Your task to perform on an android device: Go to Amazon Image 0: 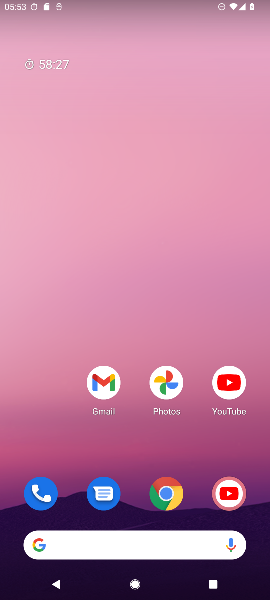
Step 0: drag from (61, 453) to (44, 83)
Your task to perform on an android device: Go to Amazon Image 1: 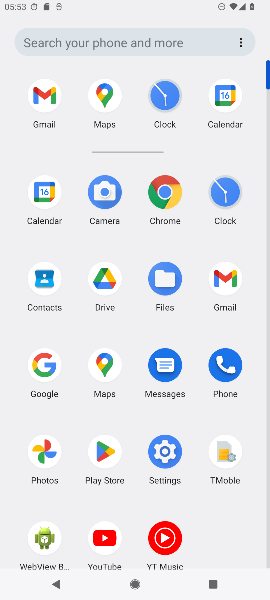
Step 1: click (164, 191)
Your task to perform on an android device: Go to Amazon Image 2: 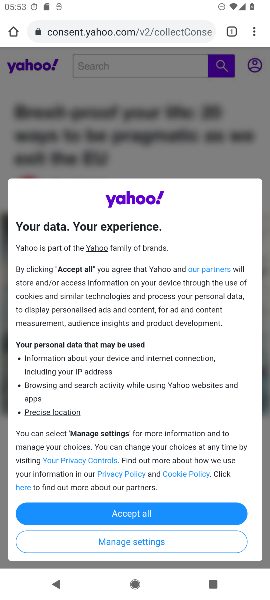
Step 2: click (154, 28)
Your task to perform on an android device: Go to Amazon Image 3: 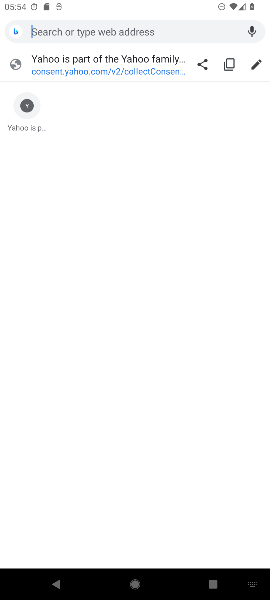
Step 3: type "amazon"
Your task to perform on an android device: Go to Amazon Image 4: 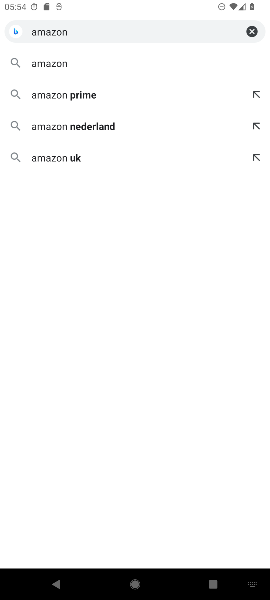
Step 4: click (85, 59)
Your task to perform on an android device: Go to Amazon Image 5: 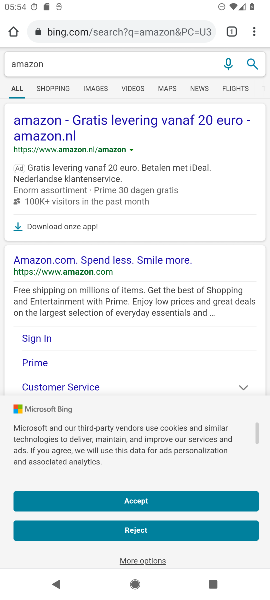
Step 5: task complete